Your task to perform on an android device: turn vacation reply on in the gmail app Image 0: 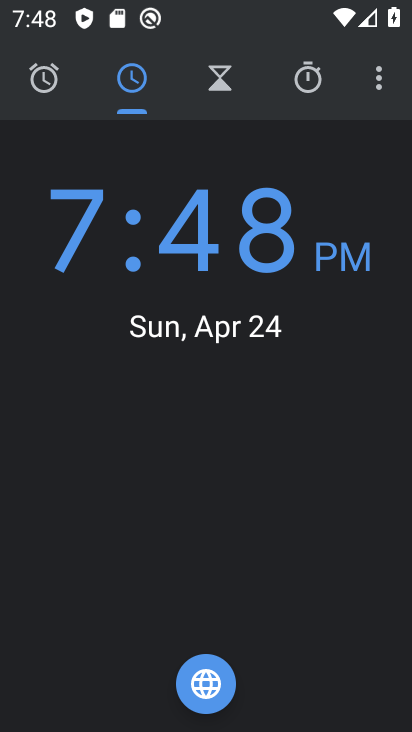
Step 0: press home button
Your task to perform on an android device: turn vacation reply on in the gmail app Image 1: 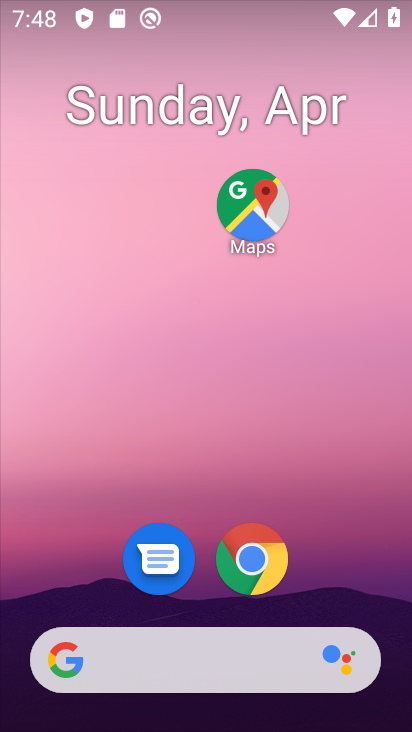
Step 1: drag from (72, 417) to (170, 203)
Your task to perform on an android device: turn vacation reply on in the gmail app Image 2: 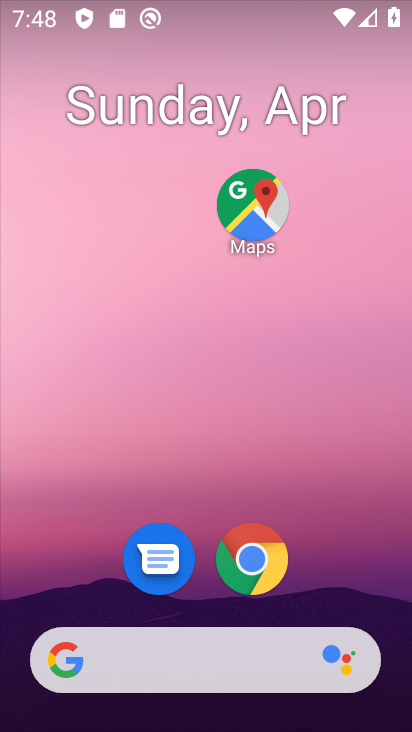
Step 2: drag from (16, 518) to (149, 182)
Your task to perform on an android device: turn vacation reply on in the gmail app Image 3: 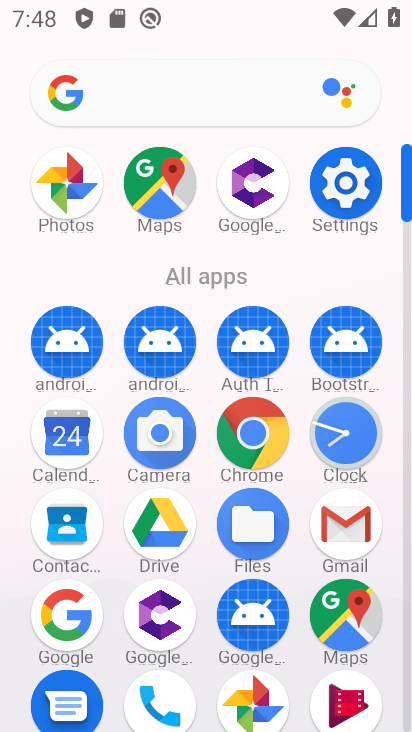
Step 3: click (327, 531)
Your task to perform on an android device: turn vacation reply on in the gmail app Image 4: 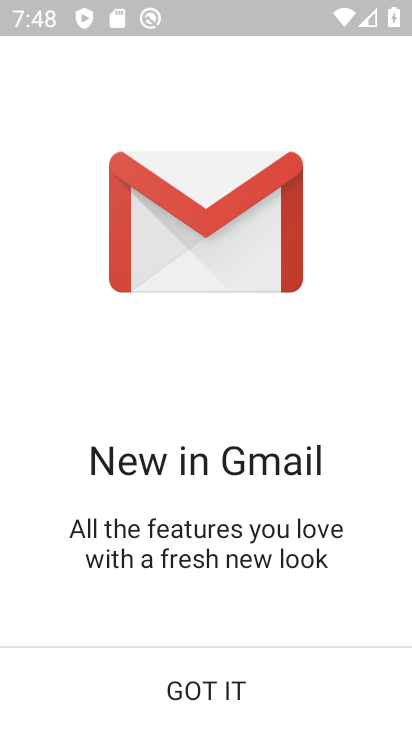
Step 4: click (189, 686)
Your task to perform on an android device: turn vacation reply on in the gmail app Image 5: 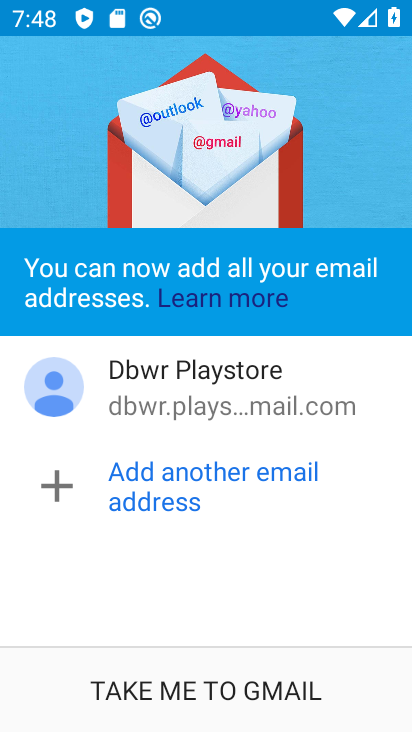
Step 5: click (201, 685)
Your task to perform on an android device: turn vacation reply on in the gmail app Image 6: 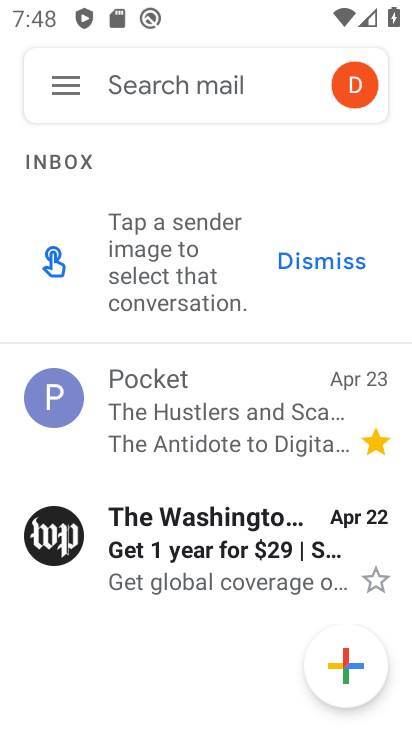
Step 6: click (58, 79)
Your task to perform on an android device: turn vacation reply on in the gmail app Image 7: 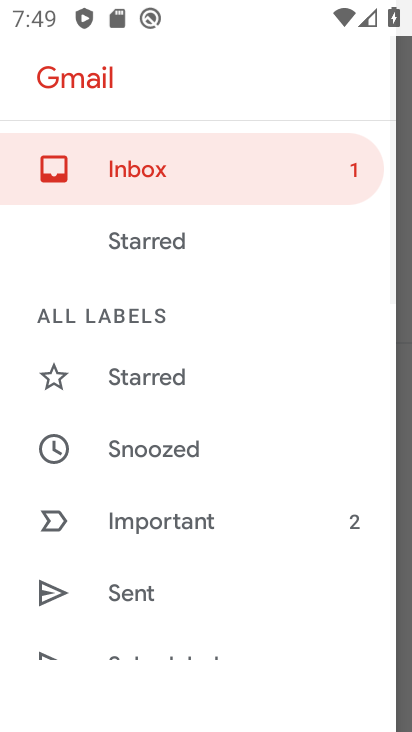
Step 7: drag from (114, 561) to (264, 172)
Your task to perform on an android device: turn vacation reply on in the gmail app Image 8: 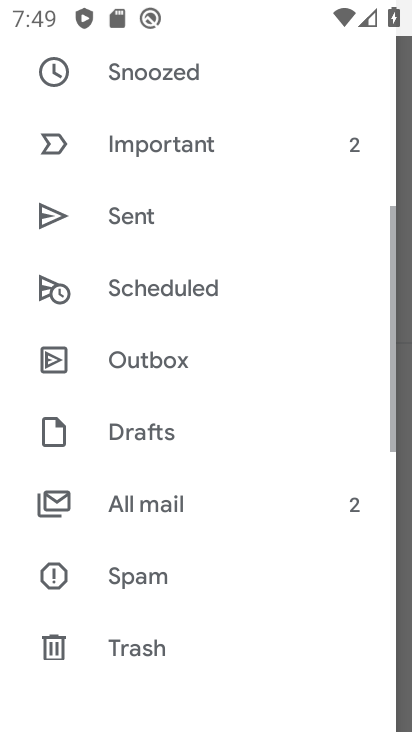
Step 8: drag from (167, 588) to (310, 89)
Your task to perform on an android device: turn vacation reply on in the gmail app Image 9: 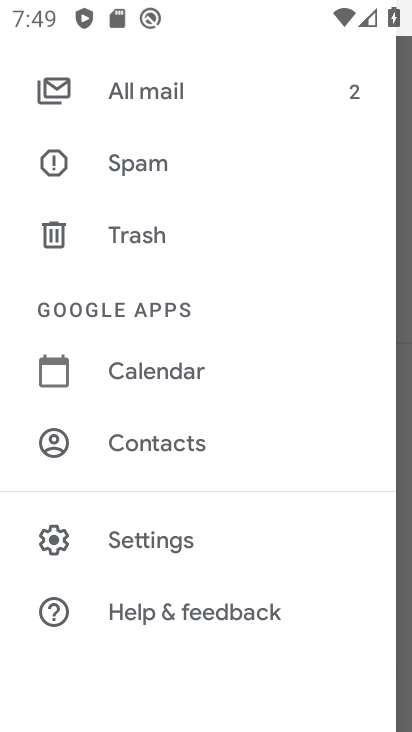
Step 9: click (191, 545)
Your task to perform on an android device: turn vacation reply on in the gmail app Image 10: 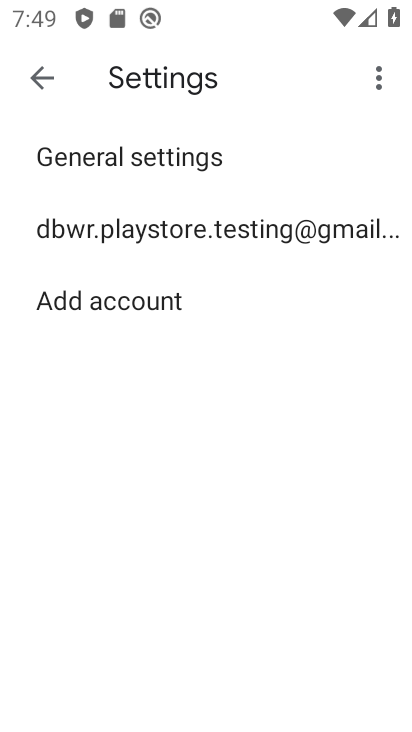
Step 10: click (193, 230)
Your task to perform on an android device: turn vacation reply on in the gmail app Image 11: 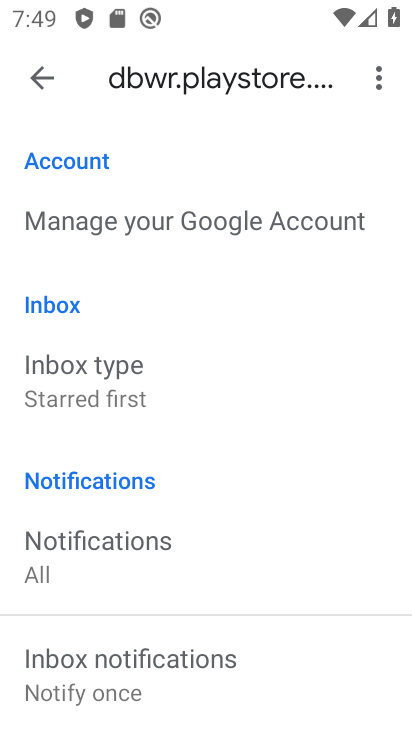
Step 11: drag from (129, 622) to (267, 232)
Your task to perform on an android device: turn vacation reply on in the gmail app Image 12: 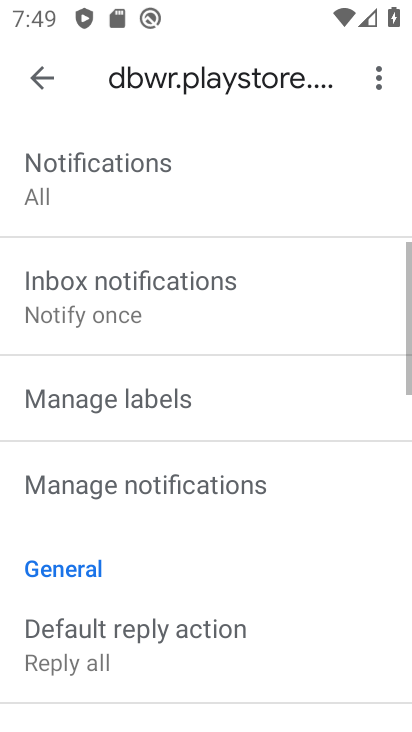
Step 12: drag from (190, 577) to (296, 224)
Your task to perform on an android device: turn vacation reply on in the gmail app Image 13: 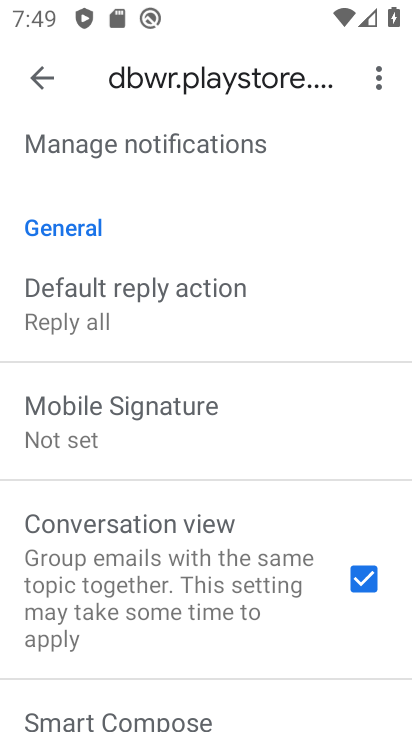
Step 13: drag from (196, 665) to (297, 343)
Your task to perform on an android device: turn vacation reply on in the gmail app Image 14: 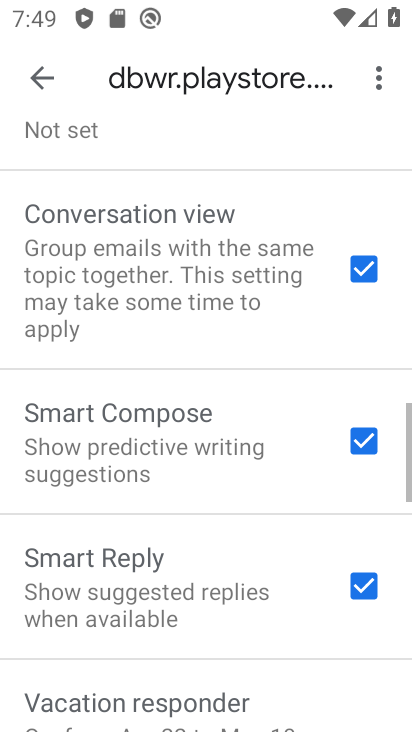
Step 14: drag from (178, 669) to (275, 244)
Your task to perform on an android device: turn vacation reply on in the gmail app Image 15: 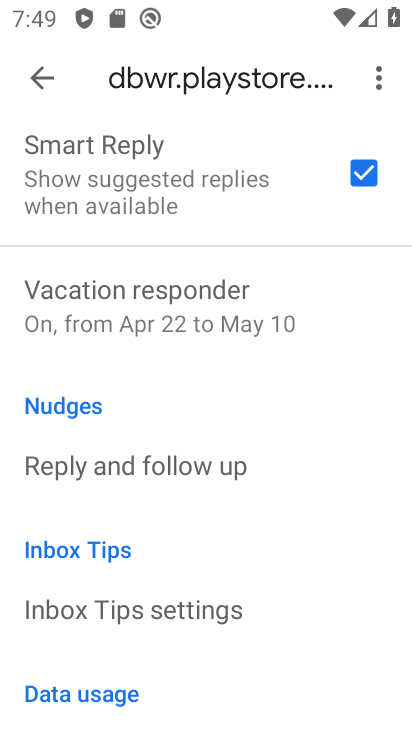
Step 15: click (124, 309)
Your task to perform on an android device: turn vacation reply on in the gmail app Image 16: 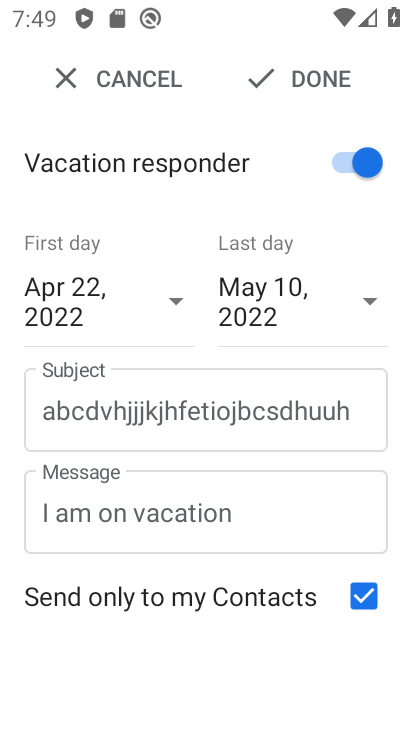
Step 16: click (318, 71)
Your task to perform on an android device: turn vacation reply on in the gmail app Image 17: 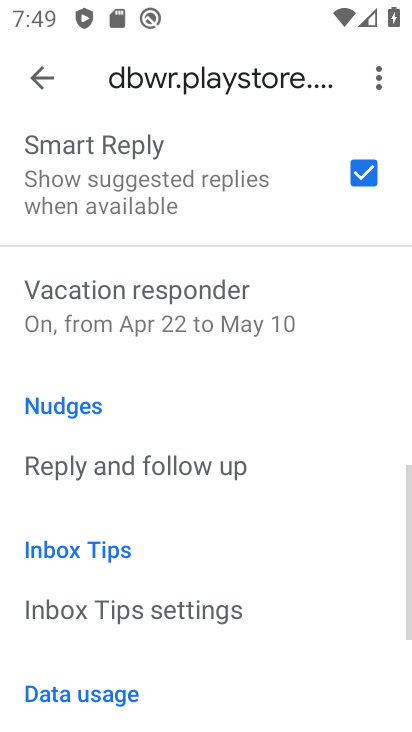
Step 17: task complete